Your task to perform on an android device: snooze an email in the gmail app Image 0: 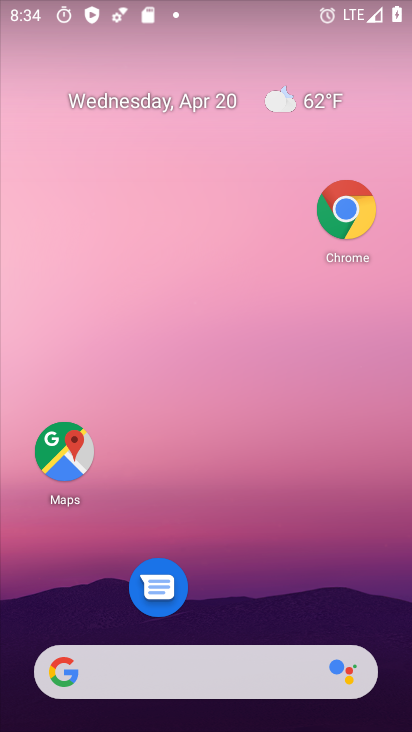
Step 0: drag from (249, 610) to (215, 104)
Your task to perform on an android device: snooze an email in the gmail app Image 1: 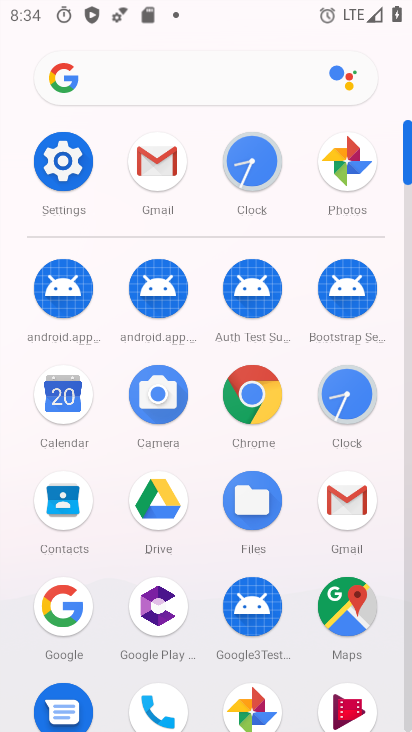
Step 1: click (146, 167)
Your task to perform on an android device: snooze an email in the gmail app Image 2: 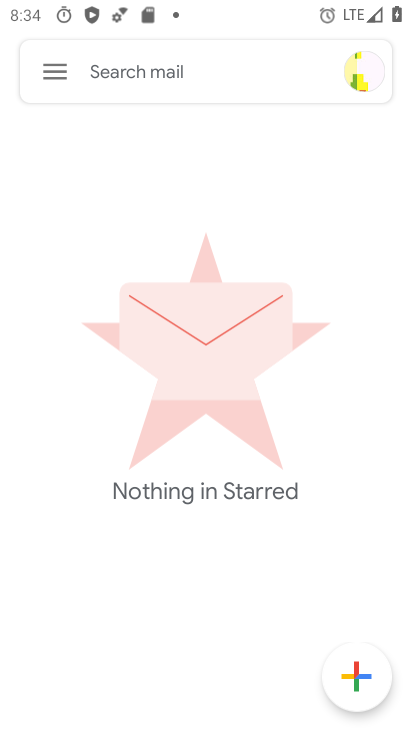
Step 2: click (71, 65)
Your task to perform on an android device: snooze an email in the gmail app Image 3: 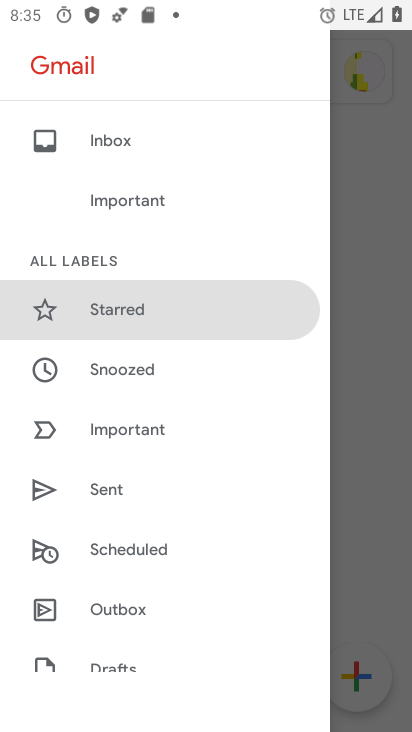
Step 3: drag from (207, 649) to (211, 270)
Your task to perform on an android device: snooze an email in the gmail app Image 4: 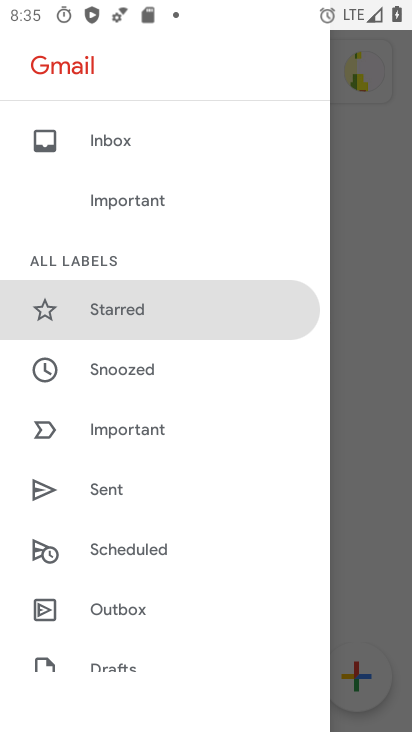
Step 4: drag from (212, 587) to (241, 87)
Your task to perform on an android device: snooze an email in the gmail app Image 5: 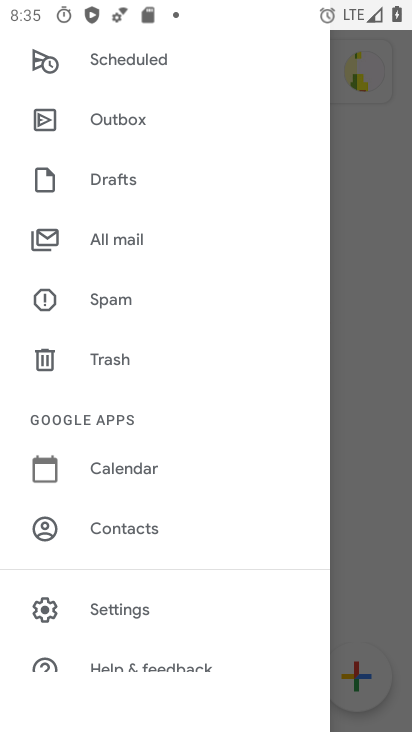
Step 5: click (114, 250)
Your task to perform on an android device: snooze an email in the gmail app Image 6: 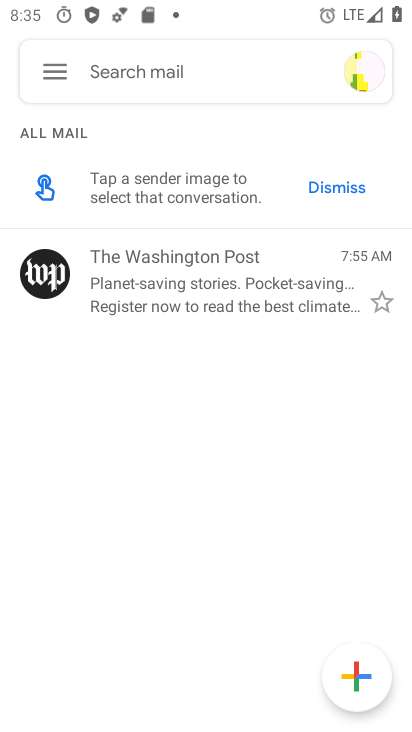
Step 6: click (35, 279)
Your task to perform on an android device: snooze an email in the gmail app Image 7: 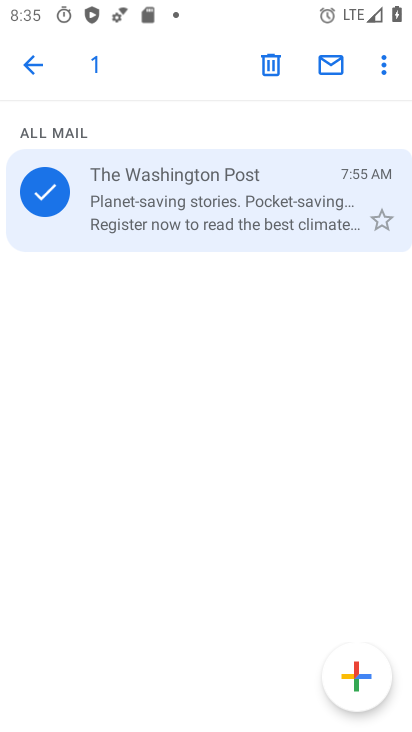
Step 7: click (379, 61)
Your task to perform on an android device: snooze an email in the gmail app Image 8: 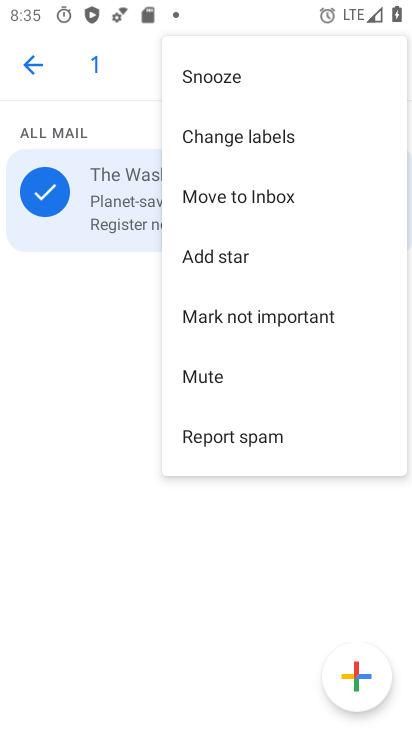
Step 8: click (241, 72)
Your task to perform on an android device: snooze an email in the gmail app Image 9: 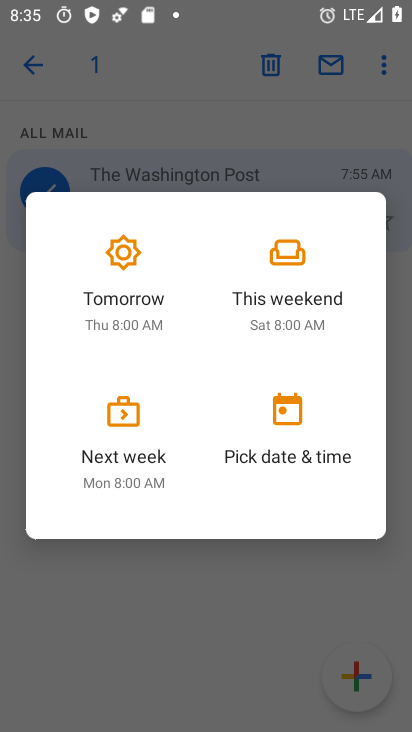
Step 9: click (258, 270)
Your task to perform on an android device: snooze an email in the gmail app Image 10: 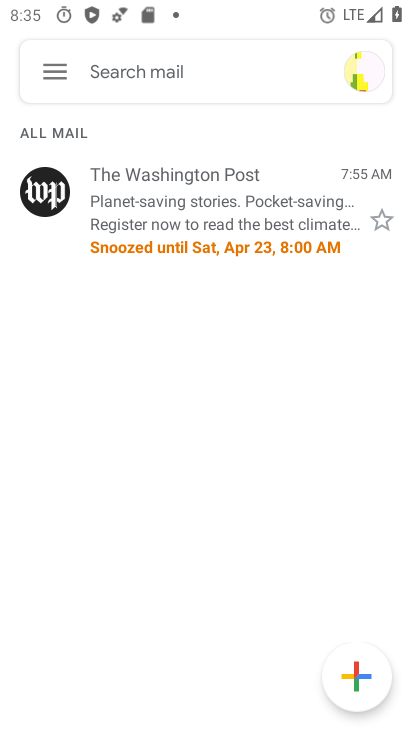
Step 10: task complete